Your task to perform on an android device: see tabs open on other devices in the chrome app Image 0: 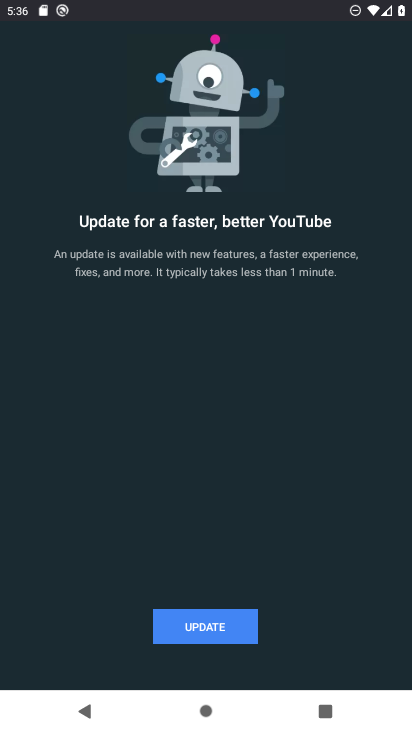
Step 0: press home button
Your task to perform on an android device: see tabs open on other devices in the chrome app Image 1: 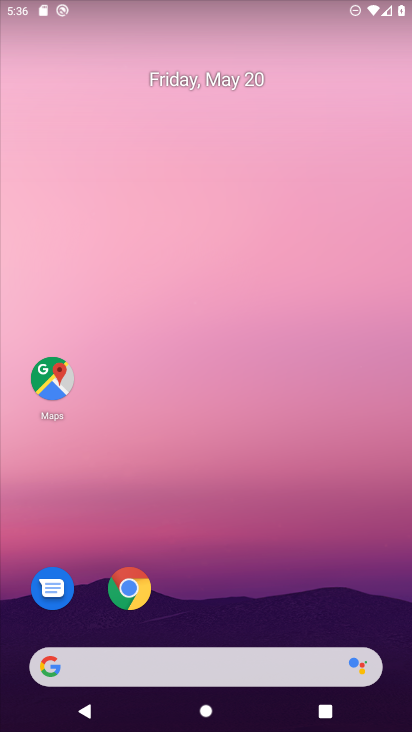
Step 1: click (131, 590)
Your task to perform on an android device: see tabs open on other devices in the chrome app Image 2: 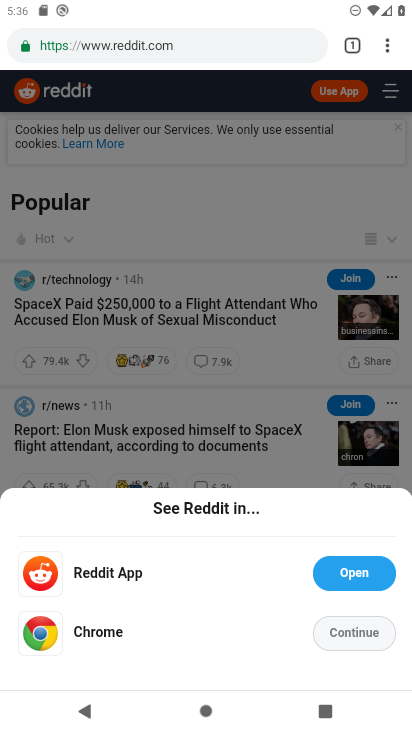
Step 2: click (391, 46)
Your task to perform on an android device: see tabs open on other devices in the chrome app Image 3: 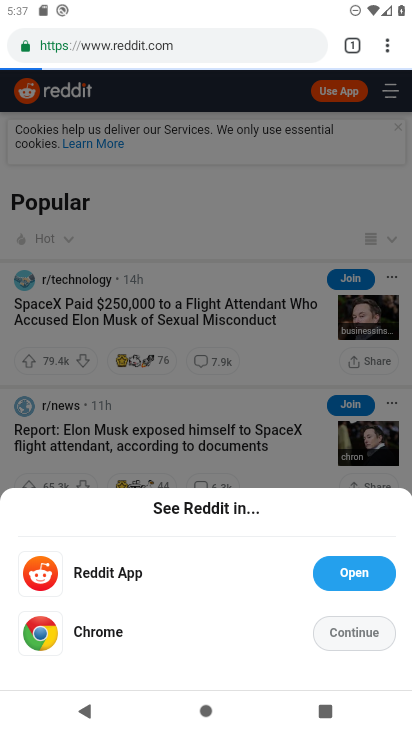
Step 3: click (387, 42)
Your task to perform on an android device: see tabs open on other devices in the chrome app Image 4: 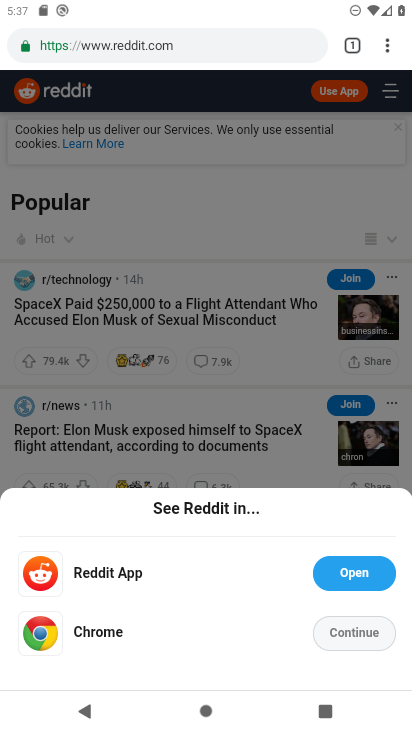
Step 4: click (387, 42)
Your task to perform on an android device: see tabs open on other devices in the chrome app Image 5: 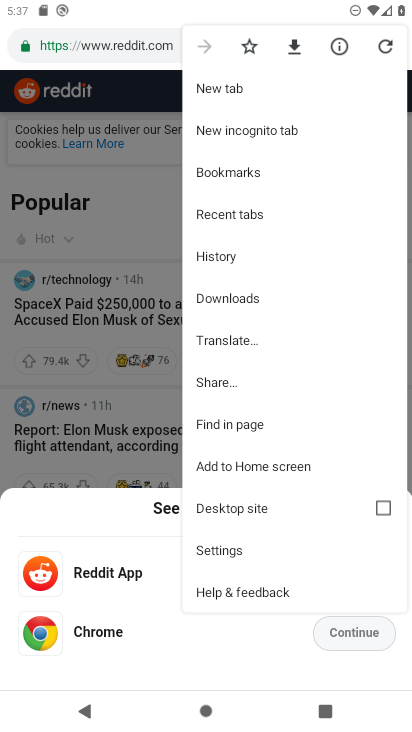
Step 5: click (263, 215)
Your task to perform on an android device: see tabs open on other devices in the chrome app Image 6: 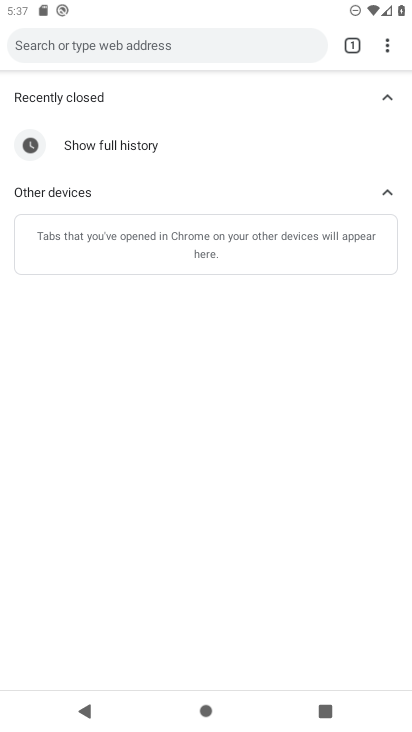
Step 6: task complete